Your task to perform on an android device: Open Google Image 0: 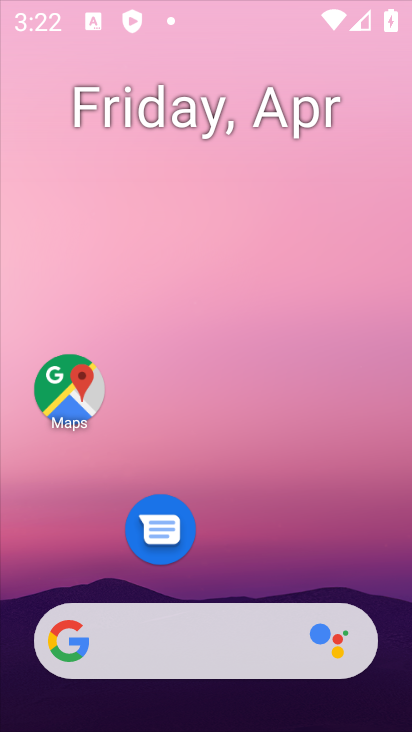
Step 0: click (324, 77)
Your task to perform on an android device: Open Google Image 1: 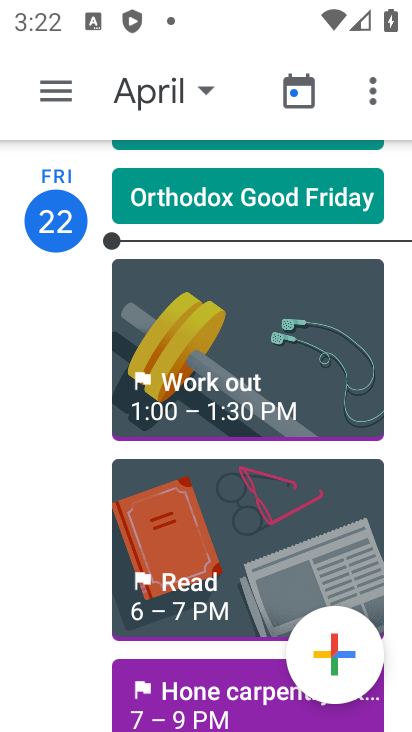
Step 1: press home button
Your task to perform on an android device: Open Google Image 2: 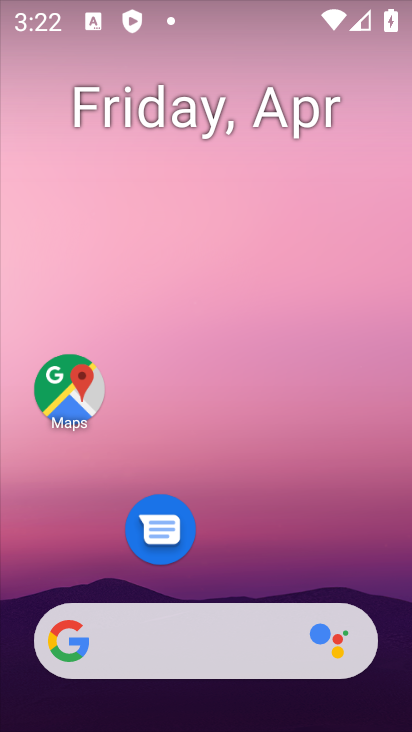
Step 2: drag from (254, 612) to (343, 93)
Your task to perform on an android device: Open Google Image 3: 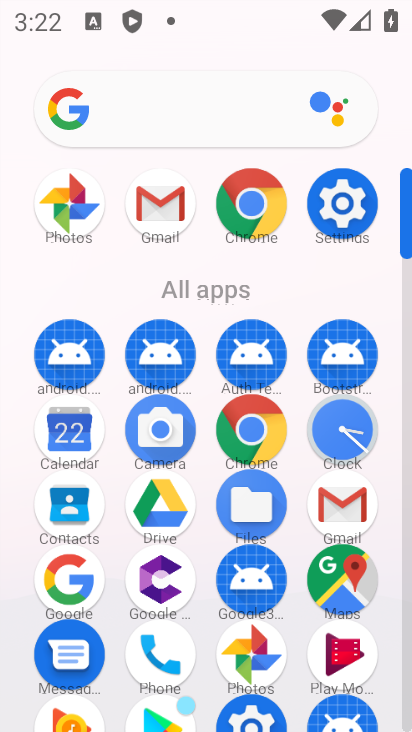
Step 3: click (83, 593)
Your task to perform on an android device: Open Google Image 4: 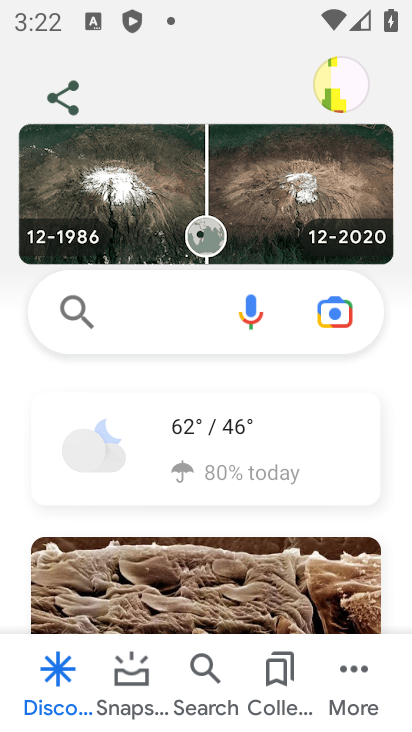
Step 4: task complete